Your task to perform on an android device: turn on location history Image 0: 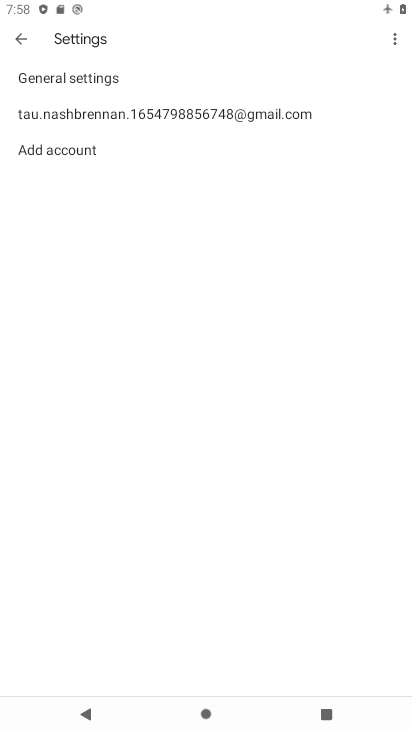
Step 0: press home button
Your task to perform on an android device: turn on location history Image 1: 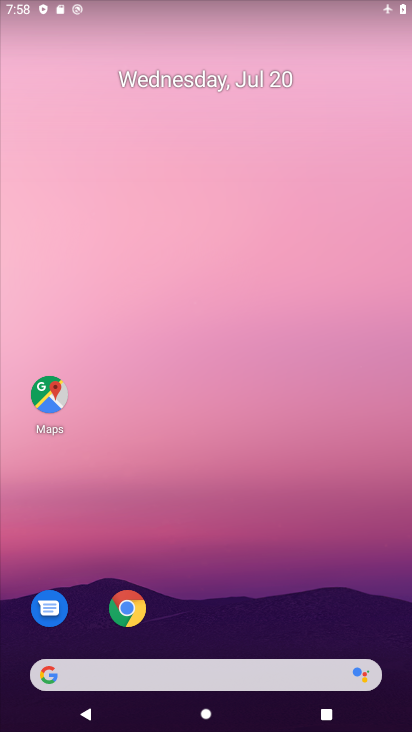
Step 1: drag from (208, 625) to (201, 54)
Your task to perform on an android device: turn on location history Image 2: 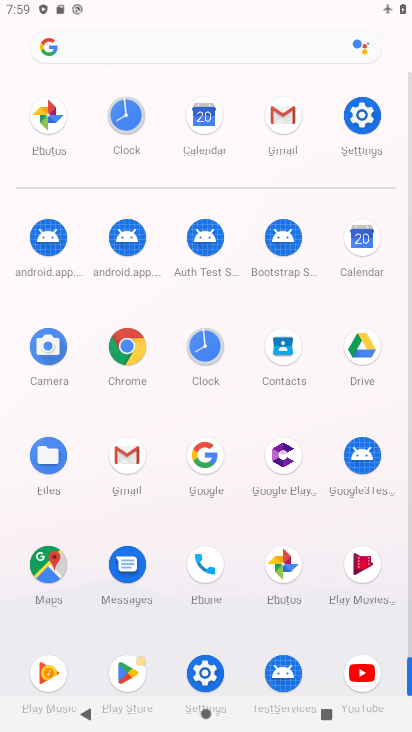
Step 2: click (367, 139)
Your task to perform on an android device: turn on location history Image 3: 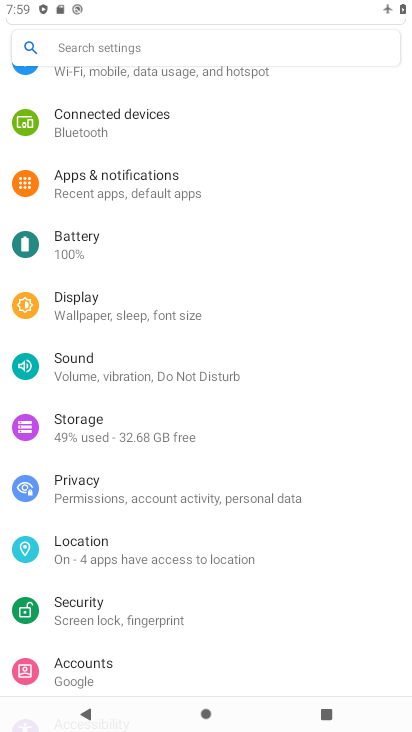
Step 3: click (119, 555)
Your task to perform on an android device: turn on location history Image 4: 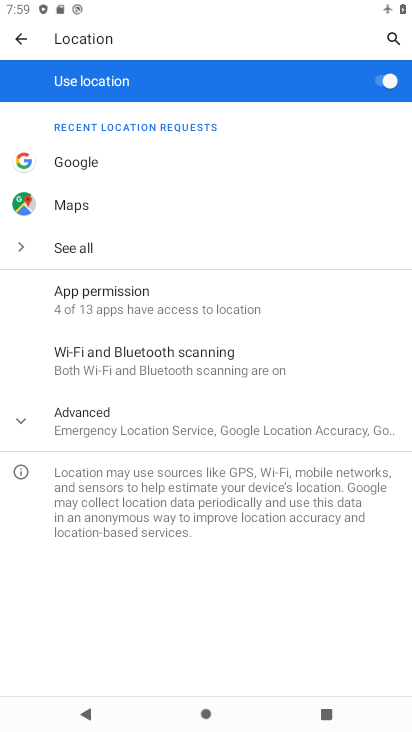
Step 4: click (132, 423)
Your task to perform on an android device: turn on location history Image 5: 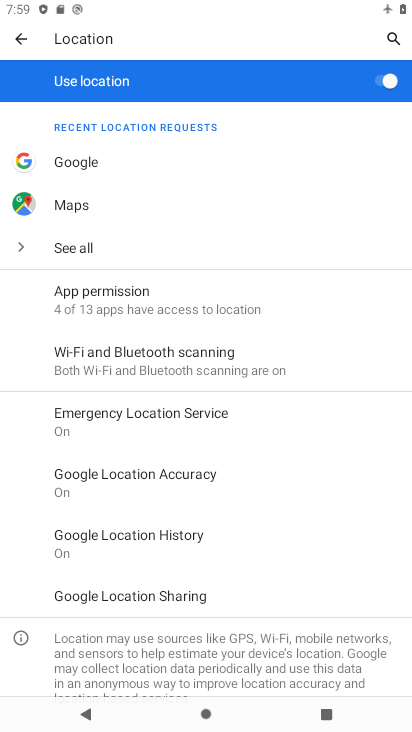
Step 5: click (186, 544)
Your task to perform on an android device: turn on location history Image 6: 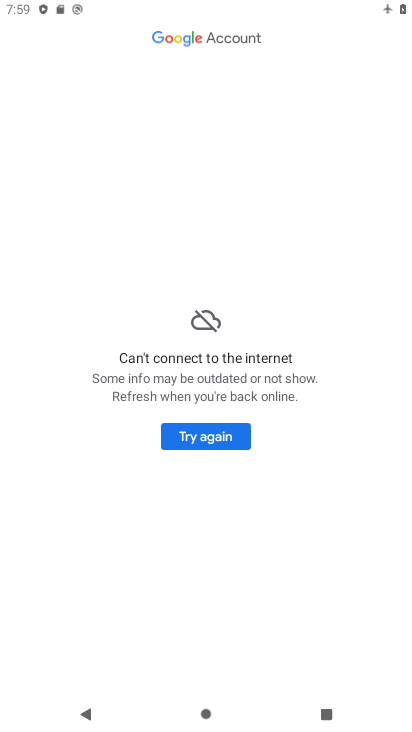
Step 6: click (233, 440)
Your task to perform on an android device: turn on location history Image 7: 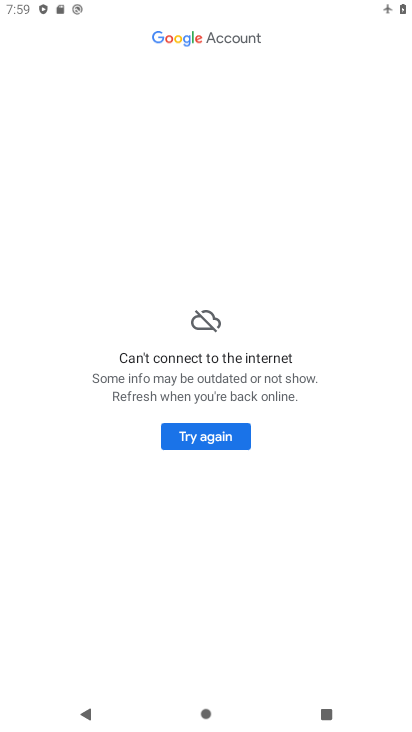
Step 7: click (236, 440)
Your task to perform on an android device: turn on location history Image 8: 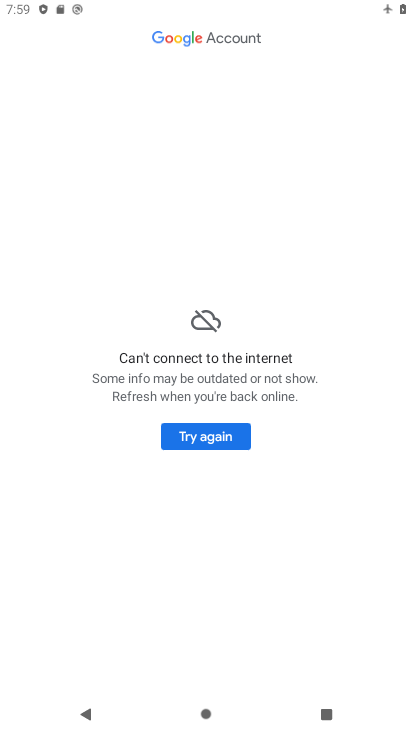
Step 8: task complete